Your task to perform on an android device: Add "macbook pro" to the cart on bestbuy, then select checkout. Image 0: 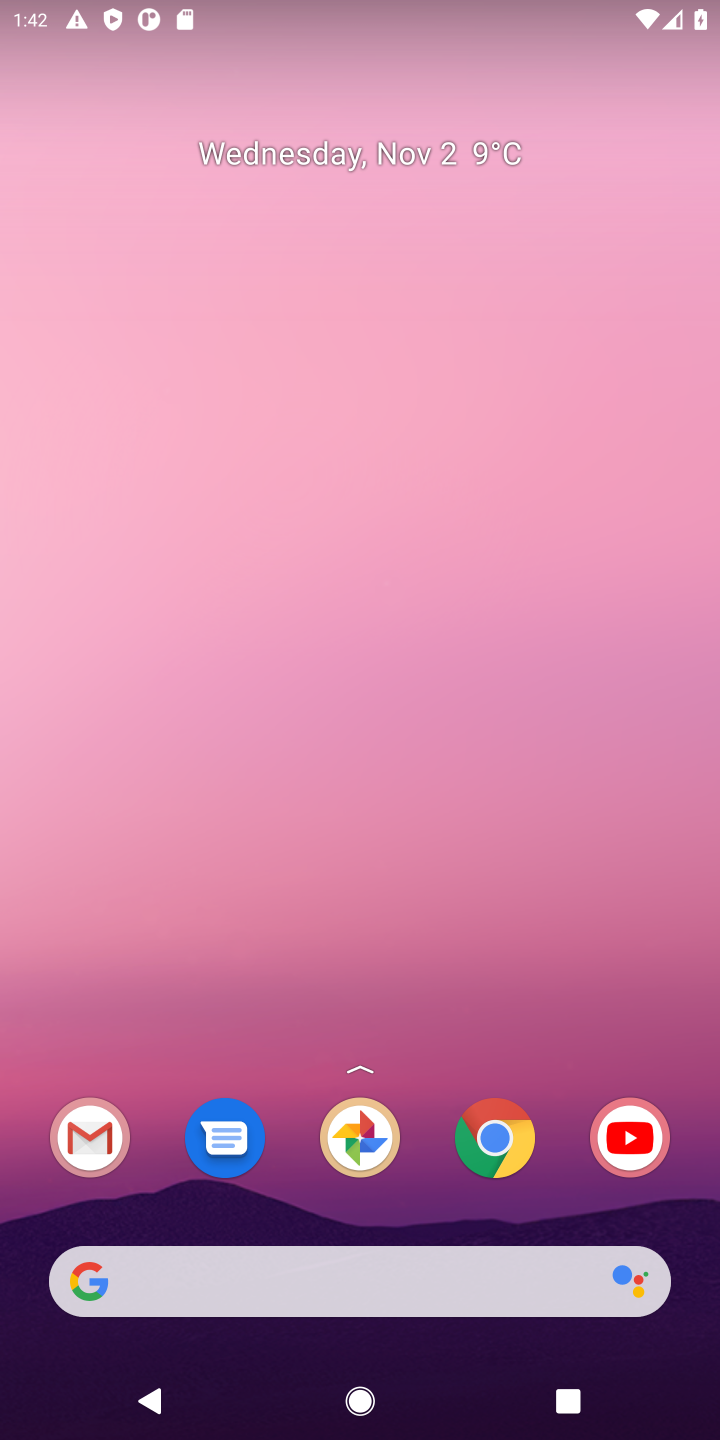
Step 0: click (476, 1129)
Your task to perform on an android device: Add "macbook pro" to the cart on bestbuy, then select checkout. Image 1: 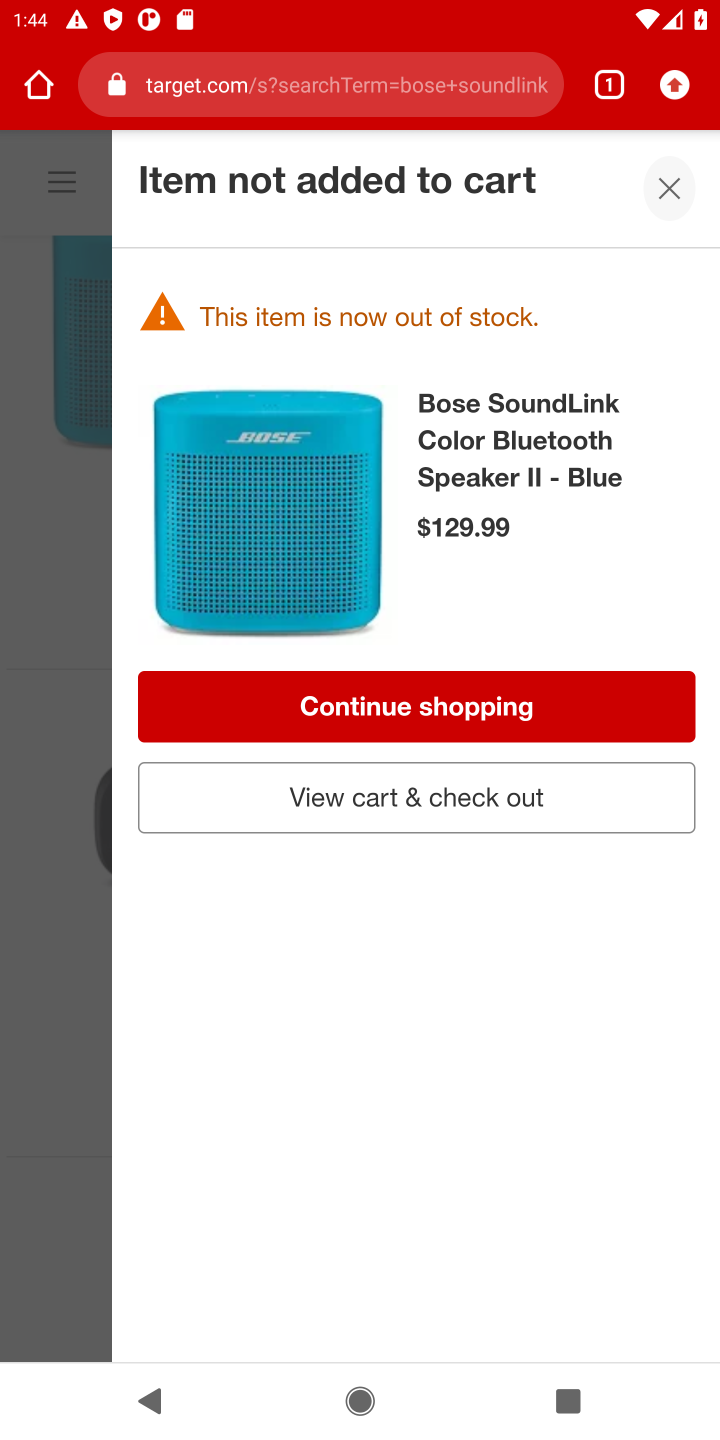
Step 1: task complete